Your task to perform on an android device: Open calendar and show me the second week of next month Image 0: 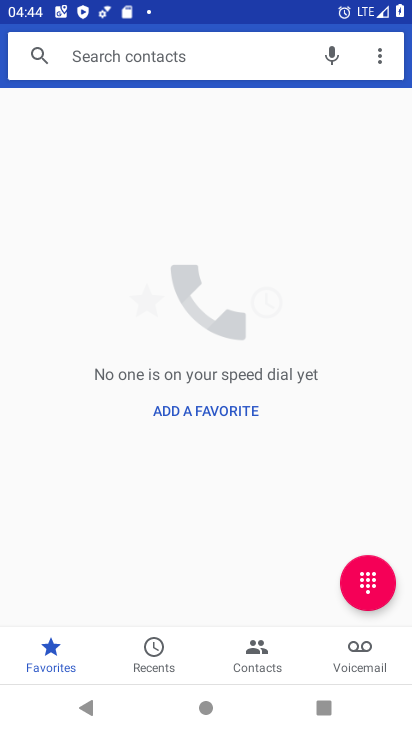
Step 0: press home button
Your task to perform on an android device: Open calendar and show me the second week of next month Image 1: 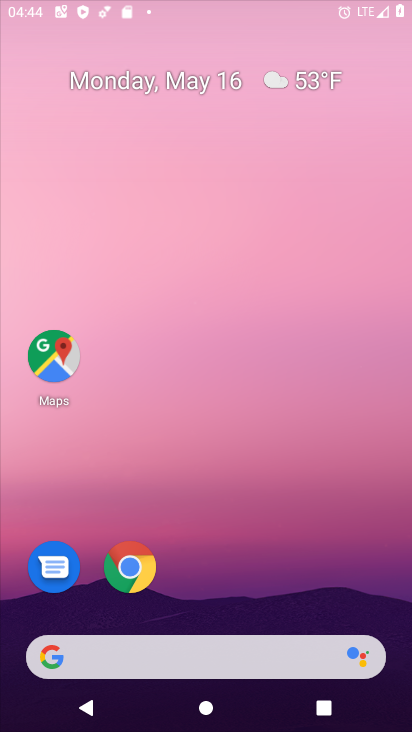
Step 1: drag from (261, 681) to (292, 219)
Your task to perform on an android device: Open calendar and show me the second week of next month Image 2: 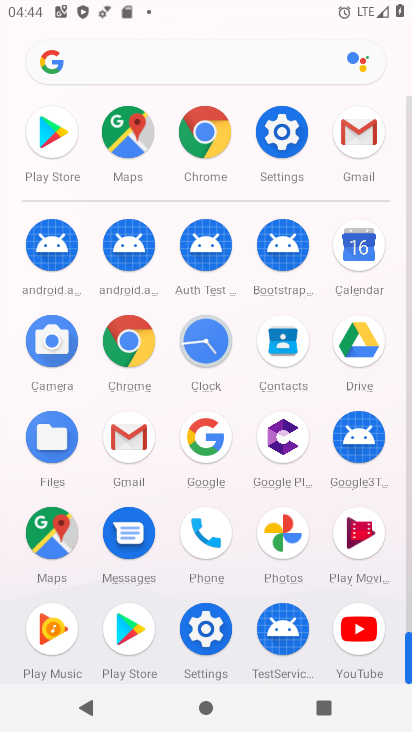
Step 2: click (346, 249)
Your task to perform on an android device: Open calendar and show me the second week of next month Image 3: 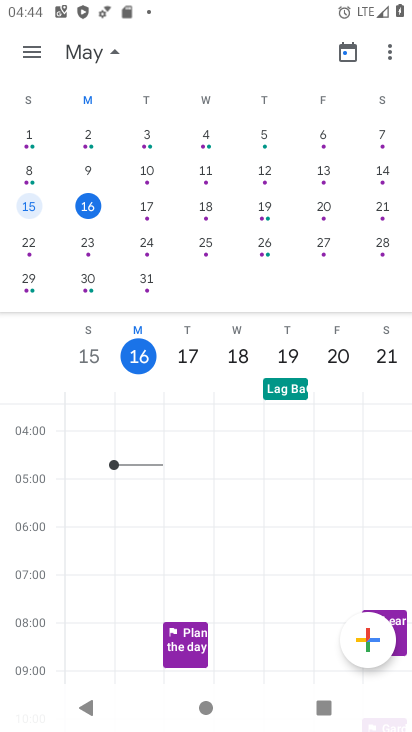
Step 3: drag from (342, 263) to (40, 259)
Your task to perform on an android device: Open calendar and show me the second week of next month Image 4: 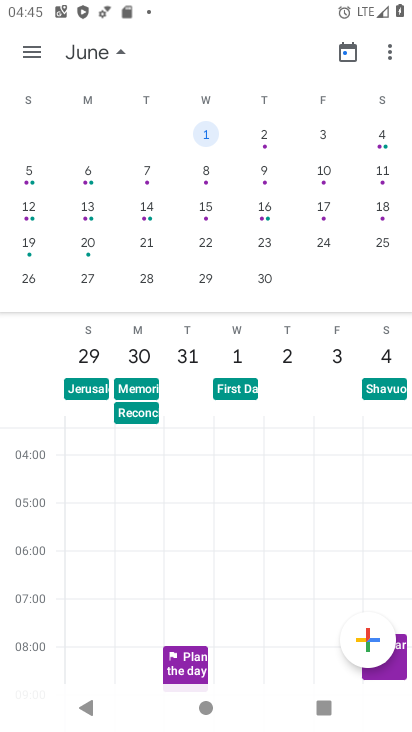
Step 4: click (268, 178)
Your task to perform on an android device: Open calendar and show me the second week of next month Image 5: 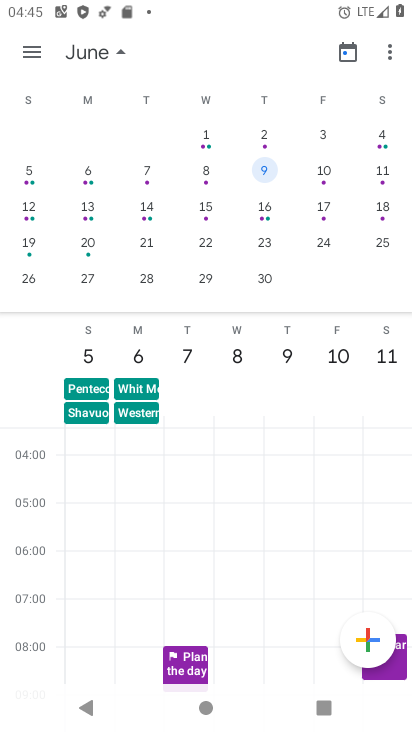
Step 5: task complete